Your task to perform on an android device: Go to Reddit.com Image 0: 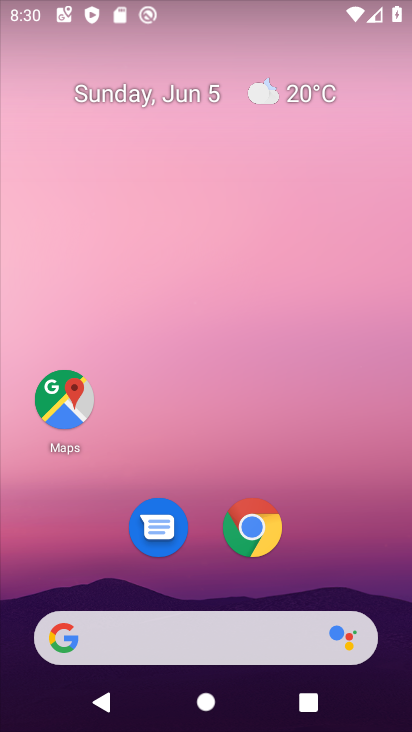
Step 0: drag from (342, 394) to (390, 0)
Your task to perform on an android device: Go to Reddit.com Image 1: 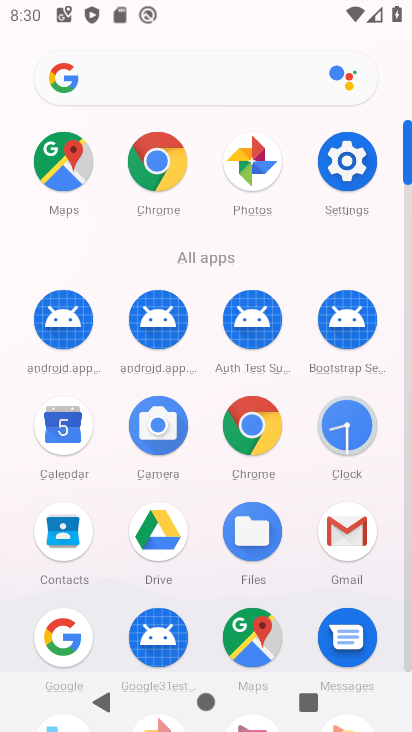
Step 1: click (157, 162)
Your task to perform on an android device: Go to Reddit.com Image 2: 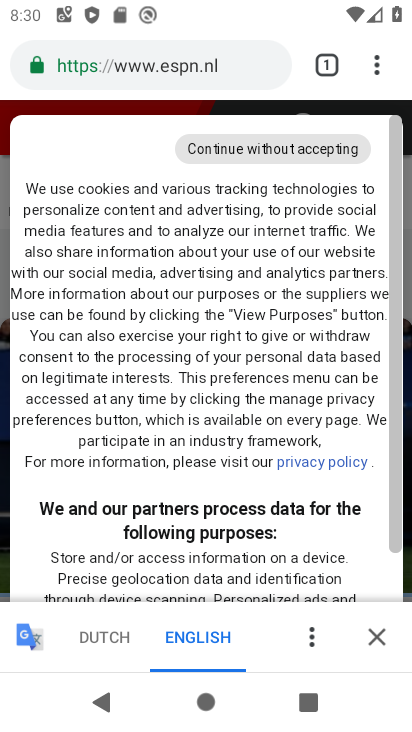
Step 2: click (209, 64)
Your task to perform on an android device: Go to Reddit.com Image 3: 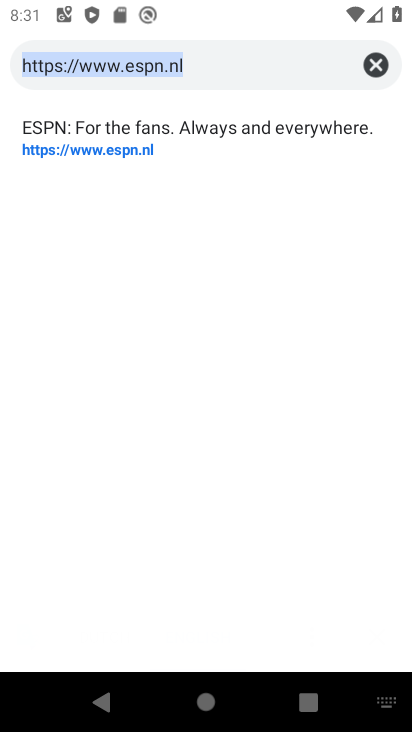
Step 3: click (383, 66)
Your task to perform on an android device: Go to Reddit.com Image 4: 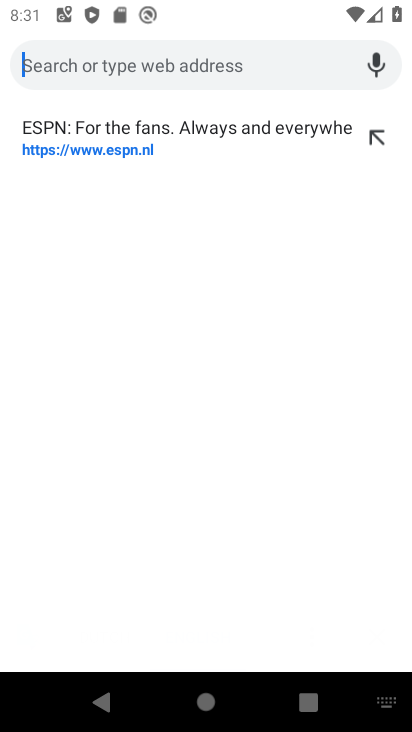
Step 4: type "reddit"
Your task to perform on an android device: Go to Reddit.com Image 5: 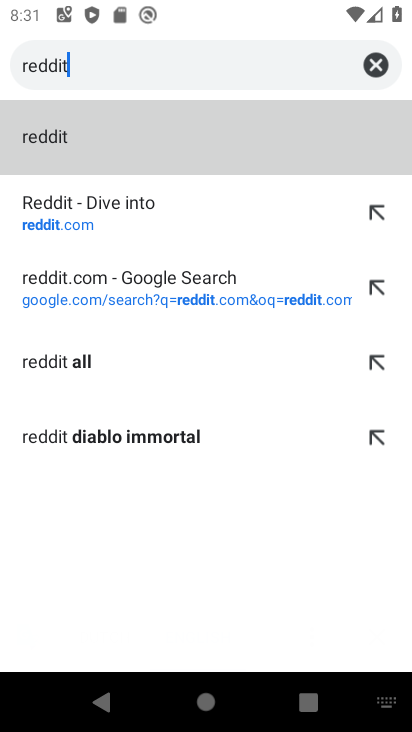
Step 5: click (46, 195)
Your task to perform on an android device: Go to Reddit.com Image 6: 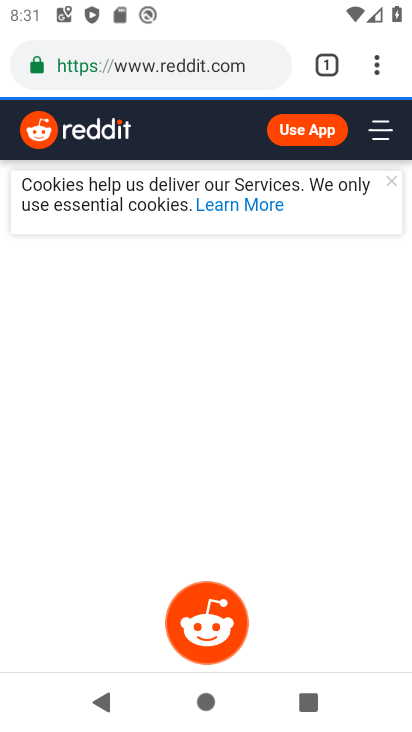
Step 6: task complete